Your task to perform on an android device: create a new album in the google photos Image 0: 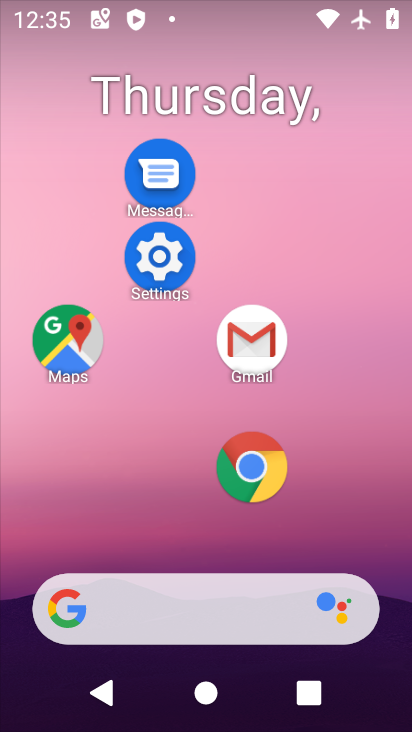
Step 0: drag from (190, 543) to (219, 213)
Your task to perform on an android device: create a new album in the google photos Image 1: 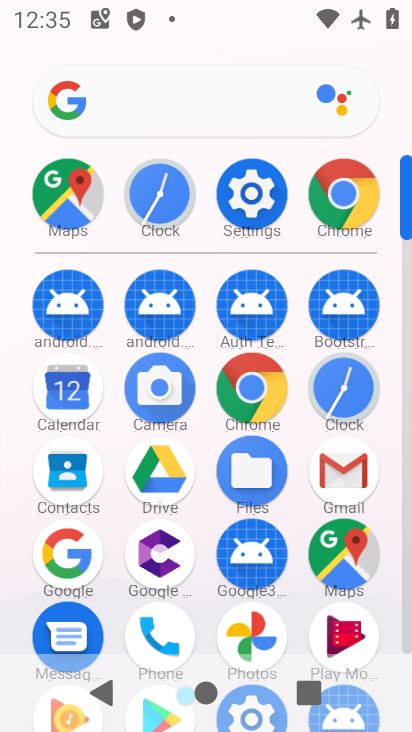
Step 1: click (257, 637)
Your task to perform on an android device: create a new album in the google photos Image 2: 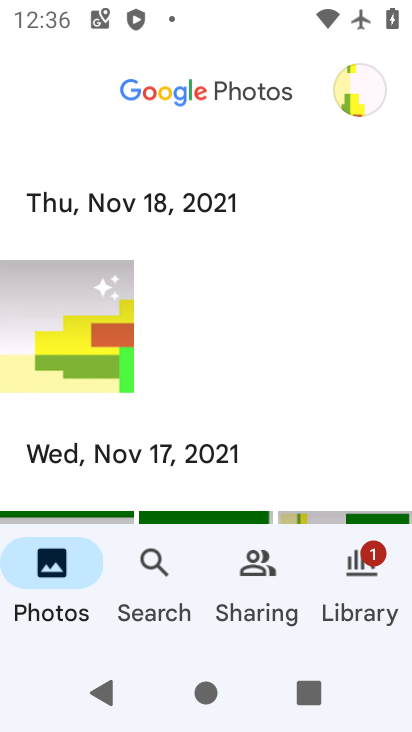
Step 2: click (350, 579)
Your task to perform on an android device: create a new album in the google photos Image 3: 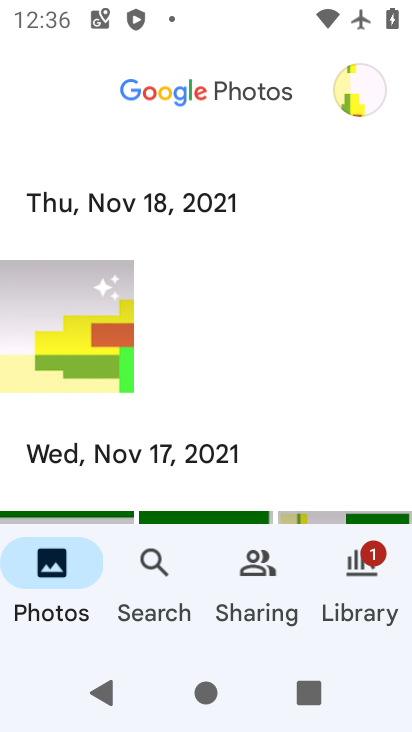
Step 3: click (363, 576)
Your task to perform on an android device: create a new album in the google photos Image 4: 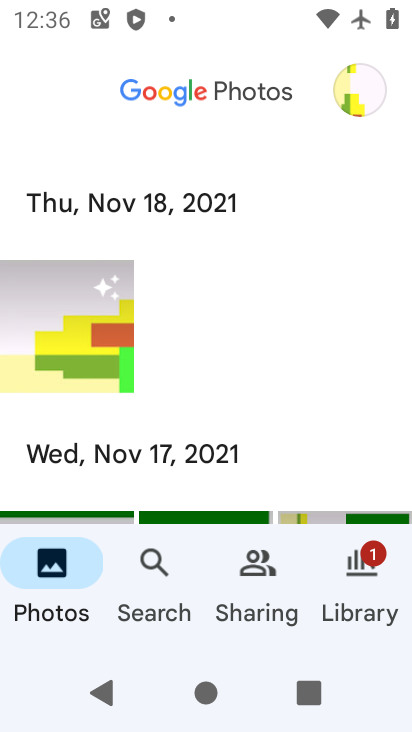
Step 4: click (351, 591)
Your task to perform on an android device: create a new album in the google photos Image 5: 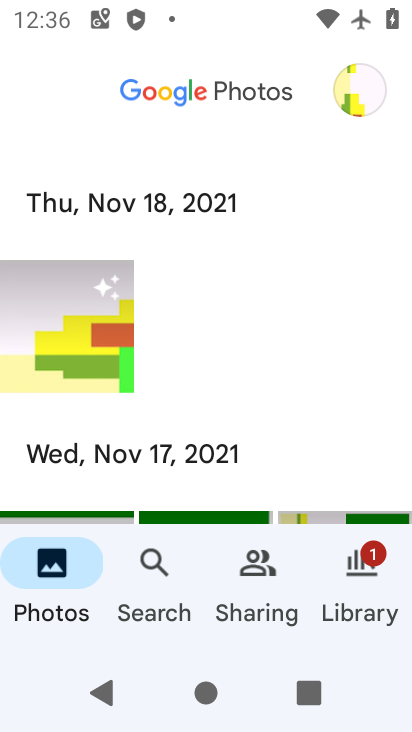
Step 5: click (351, 578)
Your task to perform on an android device: create a new album in the google photos Image 6: 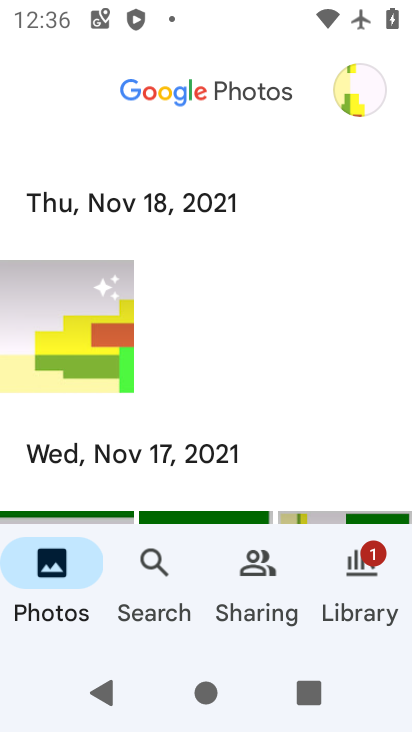
Step 6: drag from (300, 484) to (168, 43)
Your task to perform on an android device: create a new album in the google photos Image 7: 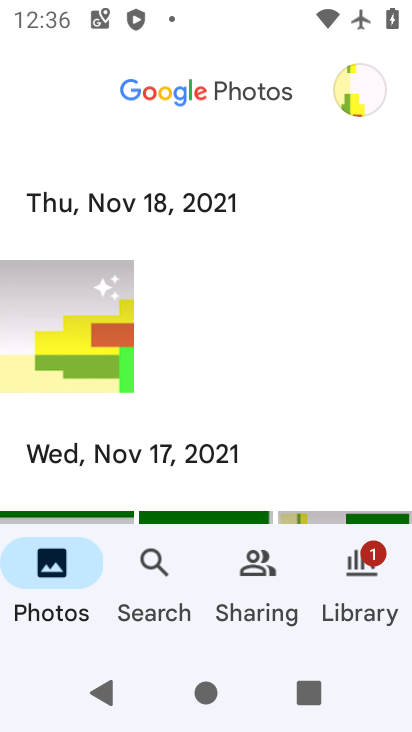
Step 7: drag from (164, 433) to (254, 77)
Your task to perform on an android device: create a new album in the google photos Image 8: 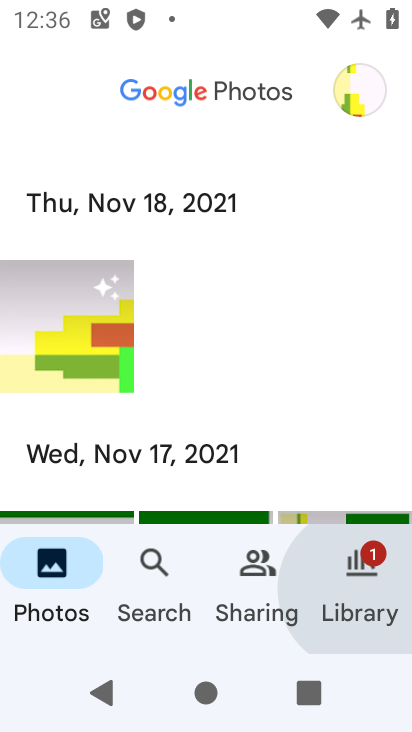
Step 8: drag from (98, 363) to (218, 31)
Your task to perform on an android device: create a new album in the google photos Image 9: 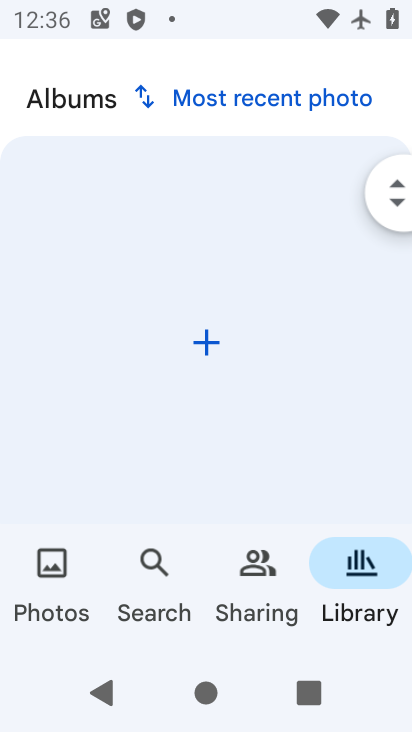
Step 9: click (193, 351)
Your task to perform on an android device: create a new album in the google photos Image 10: 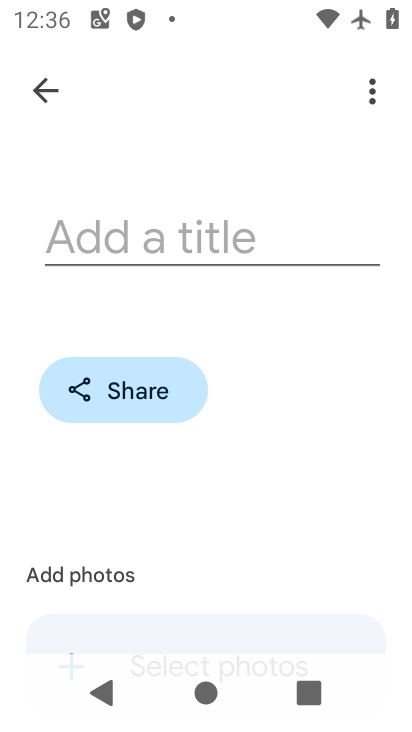
Step 10: click (174, 222)
Your task to perform on an android device: create a new album in the google photos Image 11: 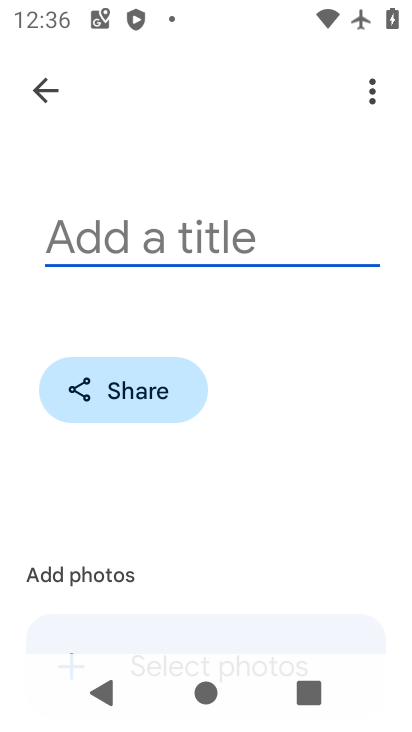
Step 11: type "mjm"
Your task to perform on an android device: create a new album in the google photos Image 12: 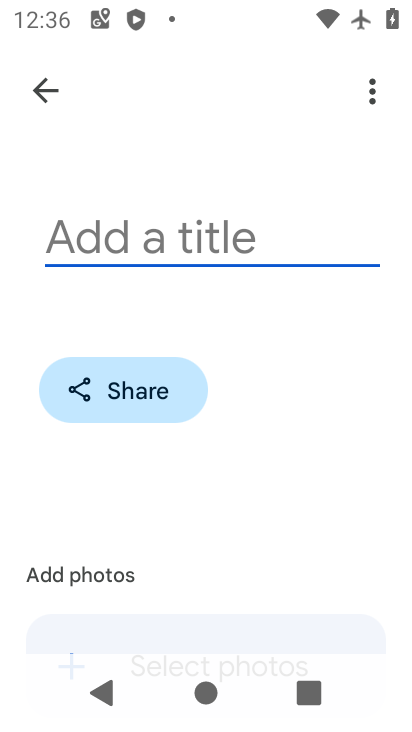
Step 12: click (142, 242)
Your task to perform on an android device: create a new album in the google photos Image 13: 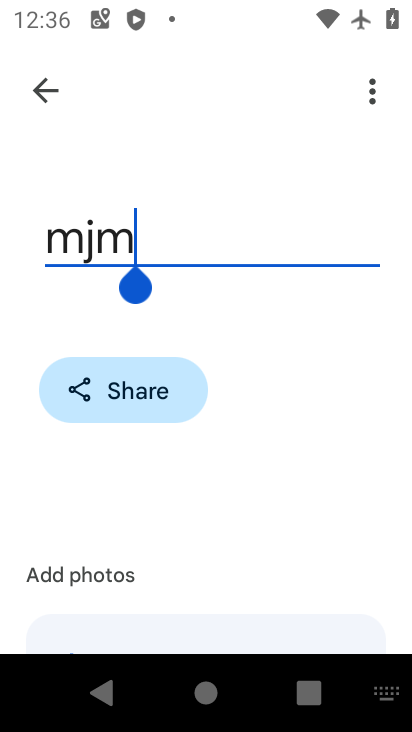
Step 13: click (139, 242)
Your task to perform on an android device: create a new album in the google photos Image 14: 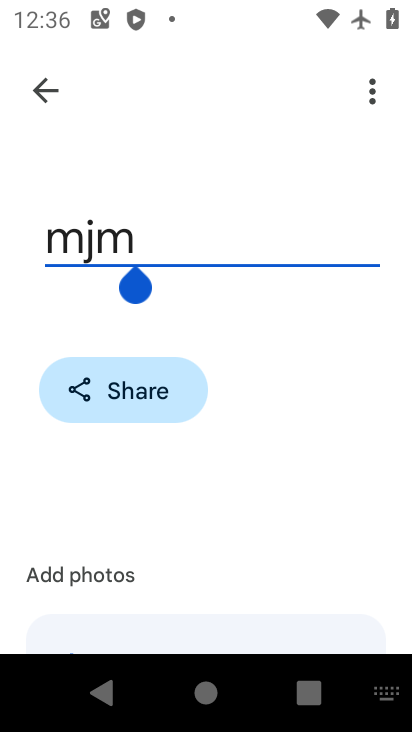
Step 14: drag from (147, 582) to (311, 124)
Your task to perform on an android device: create a new album in the google photos Image 15: 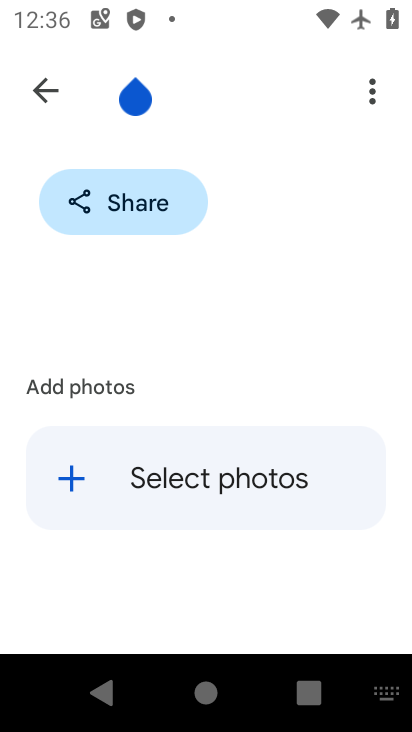
Step 15: click (98, 466)
Your task to perform on an android device: create a new album in the google photos Image 16: 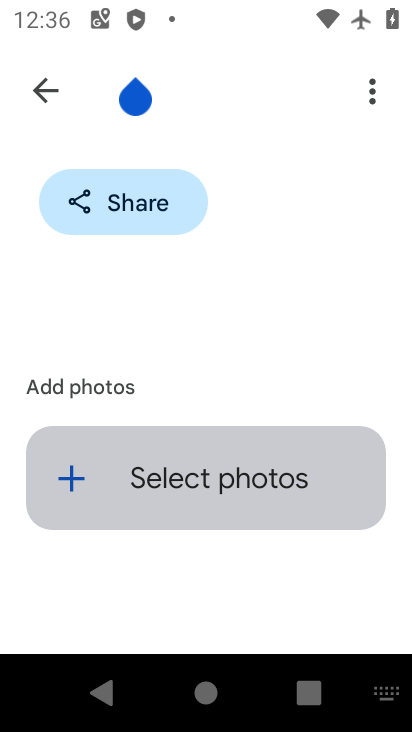
Step 16: click (75, 486)
Your task to perform on an android device: create a new album in the google photos Image 17: 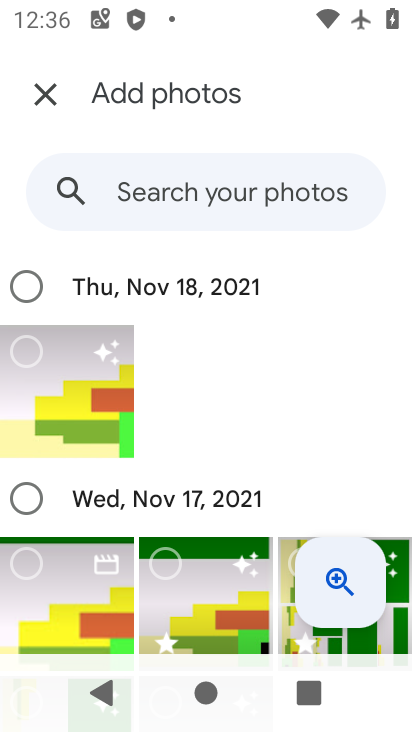
Step 17: click (73, 409)
Your task to perform on an android device: create a new album in the google photos Image 18: 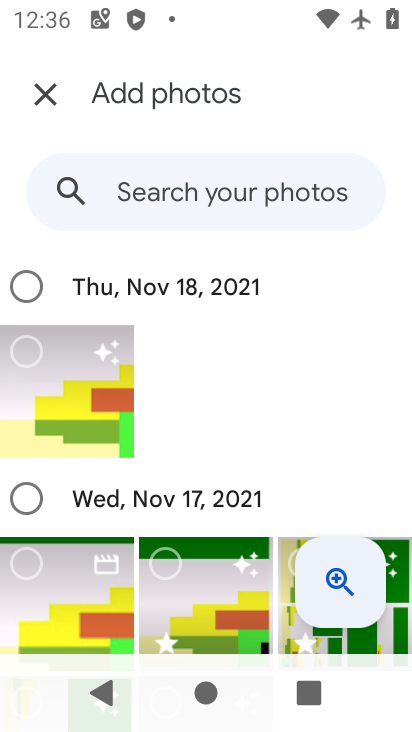
Step 18: click (69, 595)
Your task to perform on an android device: create a new album in the google photos Image 19: 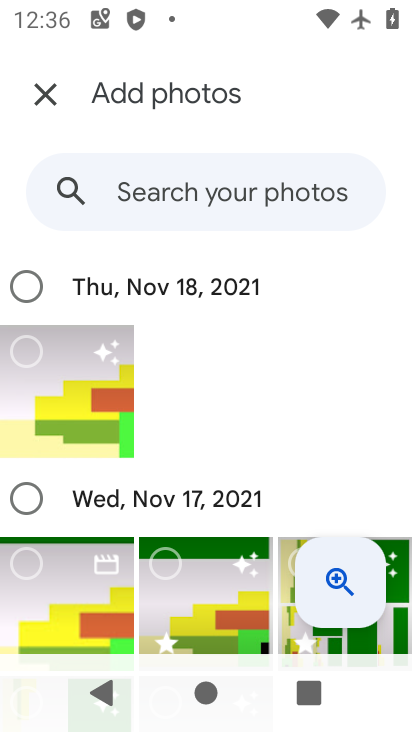
Step 19: click (221, 575)
Your task to perform on an android device: create a new album in the google photos Image 20: 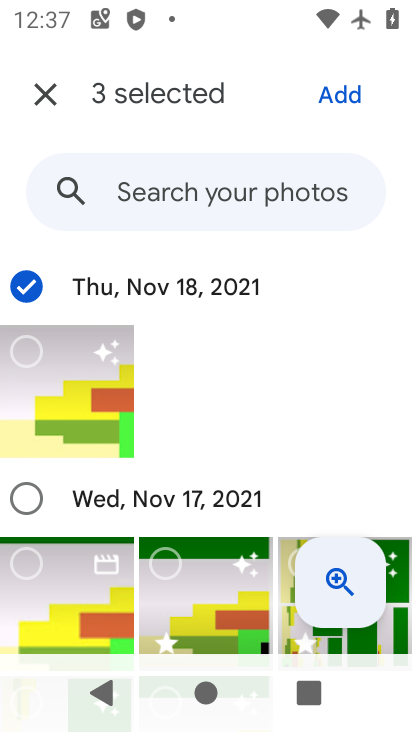
Step 20: click (349, 109)
Your task to perform on an android device: create a new album in the google photos Image 21: 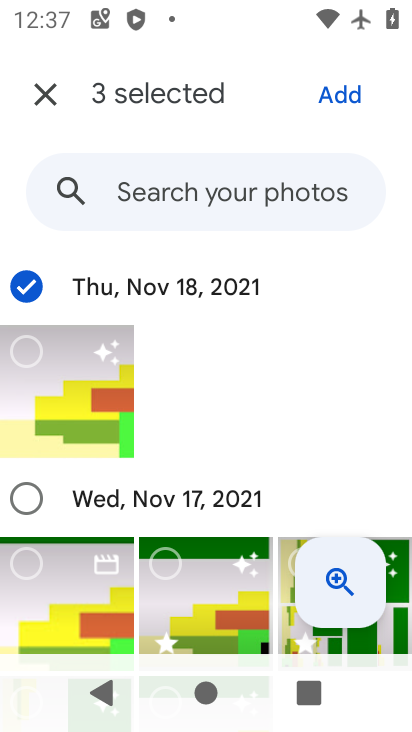
Step 21: click (345, 94)
Your task to perform on an android device: create a new album in the google photos Image 22: 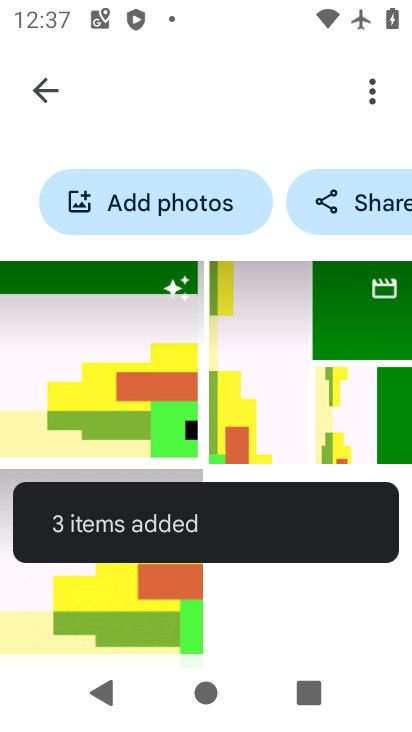
Step 22: task complete